Your task to perform on an android device: Open network settings Image 0: 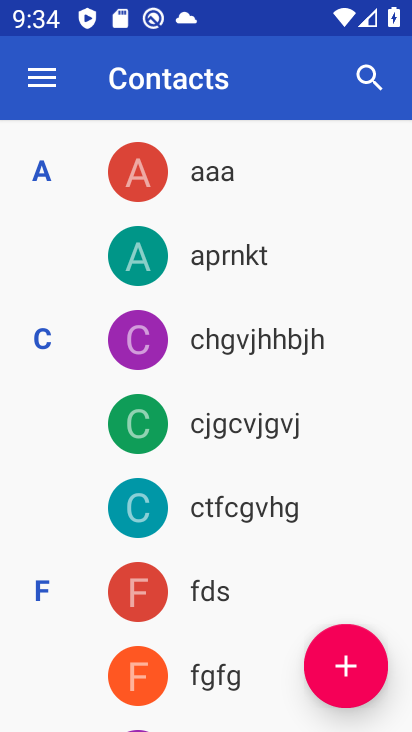
Step 0: press home button
Your task to perform on an android device: Open network settings Image 1: 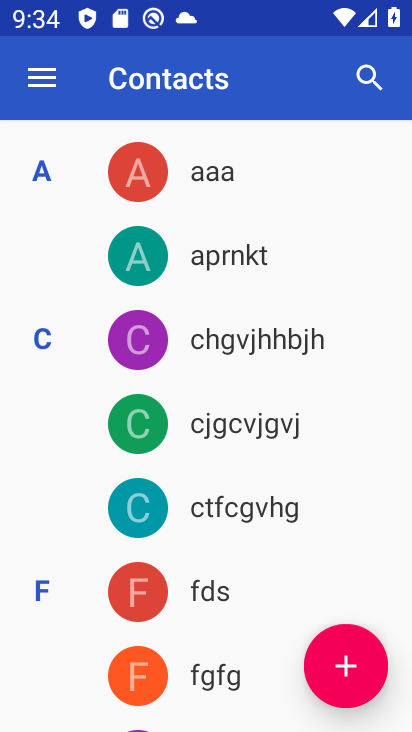
Step 1: press home button
Your task to perform on an android device: Open network settings Image 2: 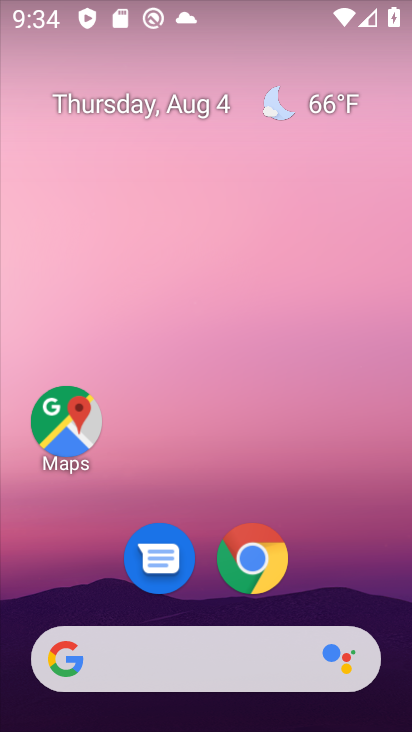
Step 2: drag from (341, 570) to (274, 229)
Your task to perform on an android device: Open network settings Image 3: 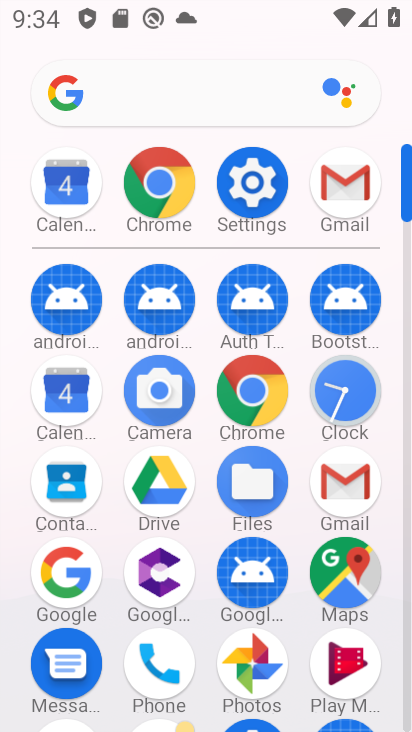
Step 3: drag from (295, 621) to (306, 360)
Your task to perform on an android device: Open network settings Image 4: 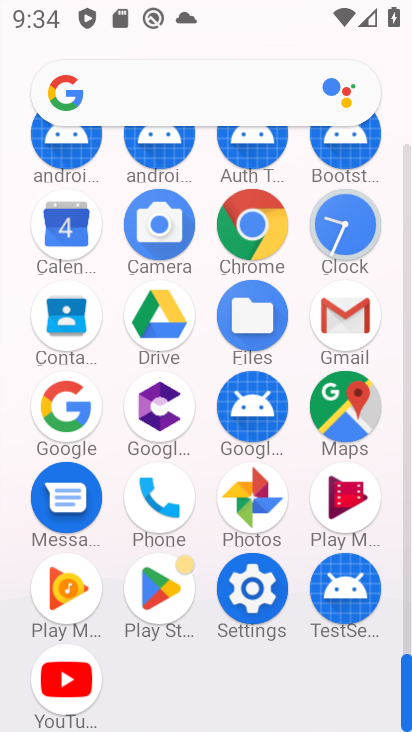
Step 4: click (252, 578)
Your task to perform on an android device: Open network settings Image 5: 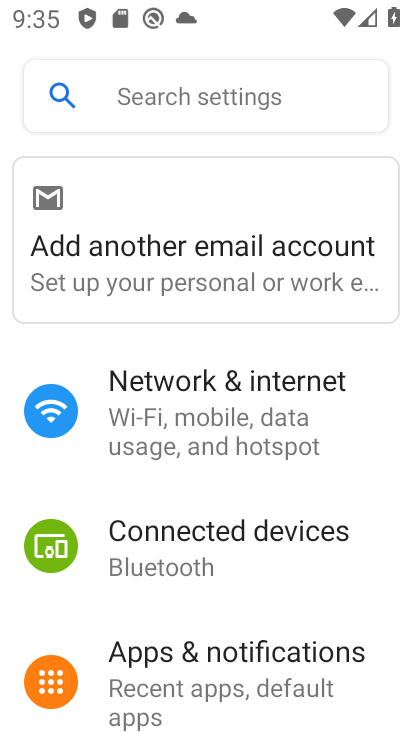
Step 5: click (271, 421)
Your task to perform on an android device: Open network settings Image 6: 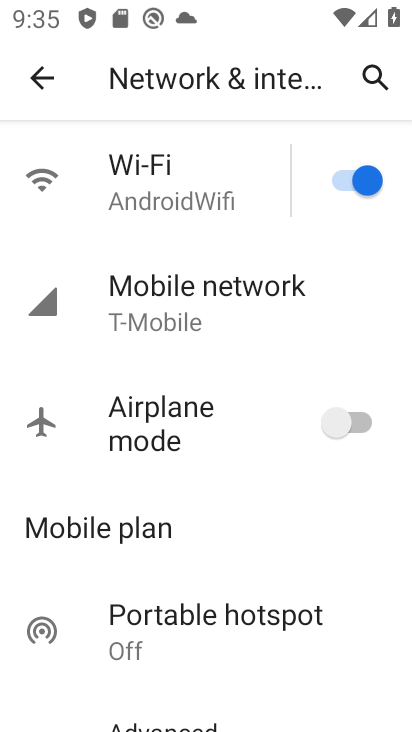
Step 6: task complete